Your task to perform on an android device: toggle data saver in the chrome app Image 0: 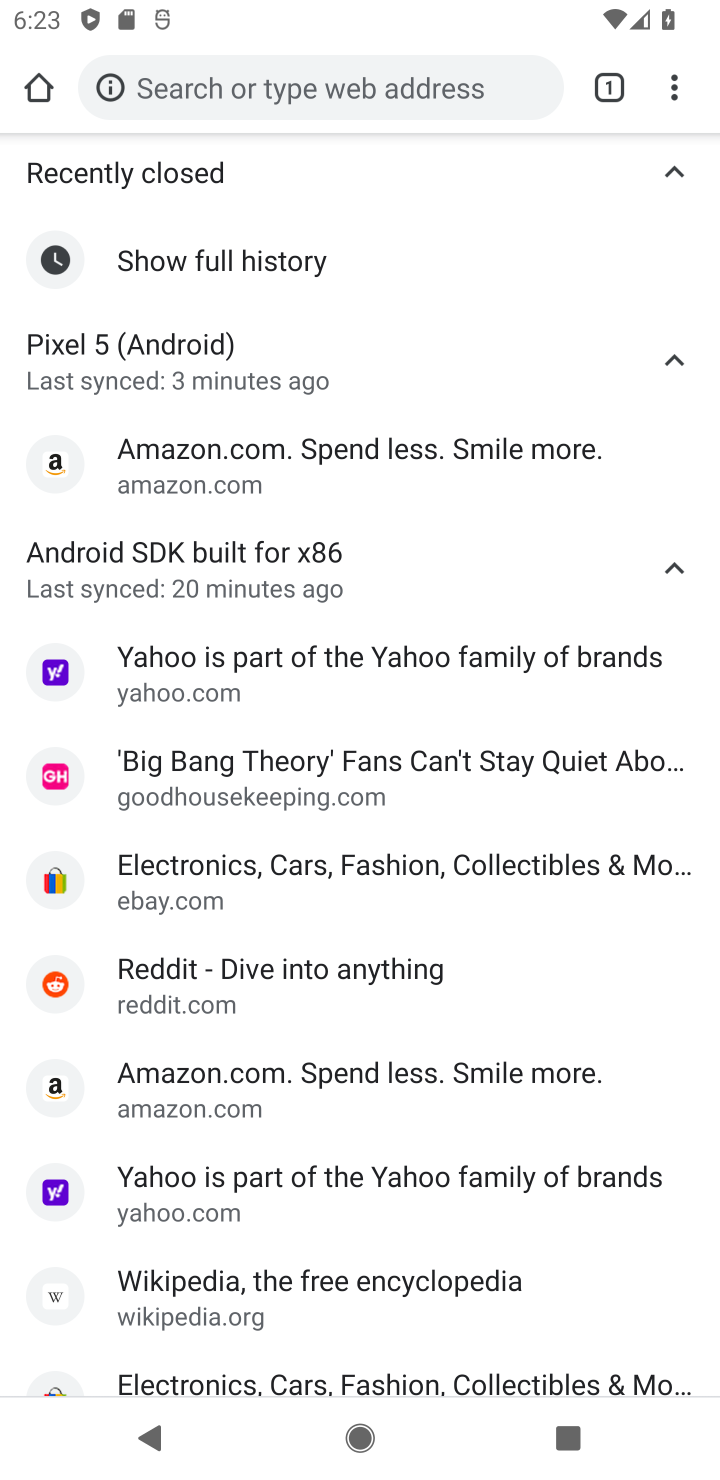
Step 0: press back button
Your task to perform on an android device: toggle data saver in the chrome app Image 1: 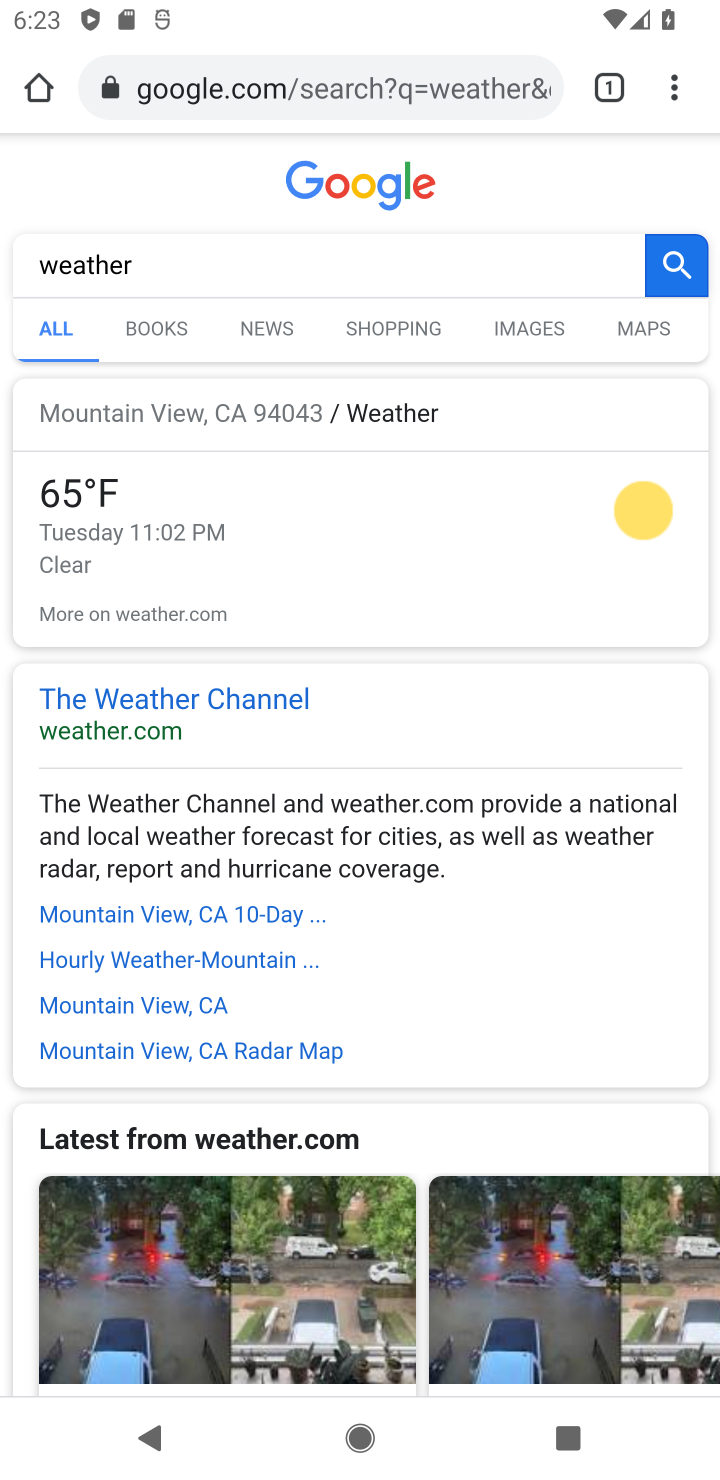
Step 1: press home button
Your task to perform on an android device: toggle data saver in the chrome app Image 2: 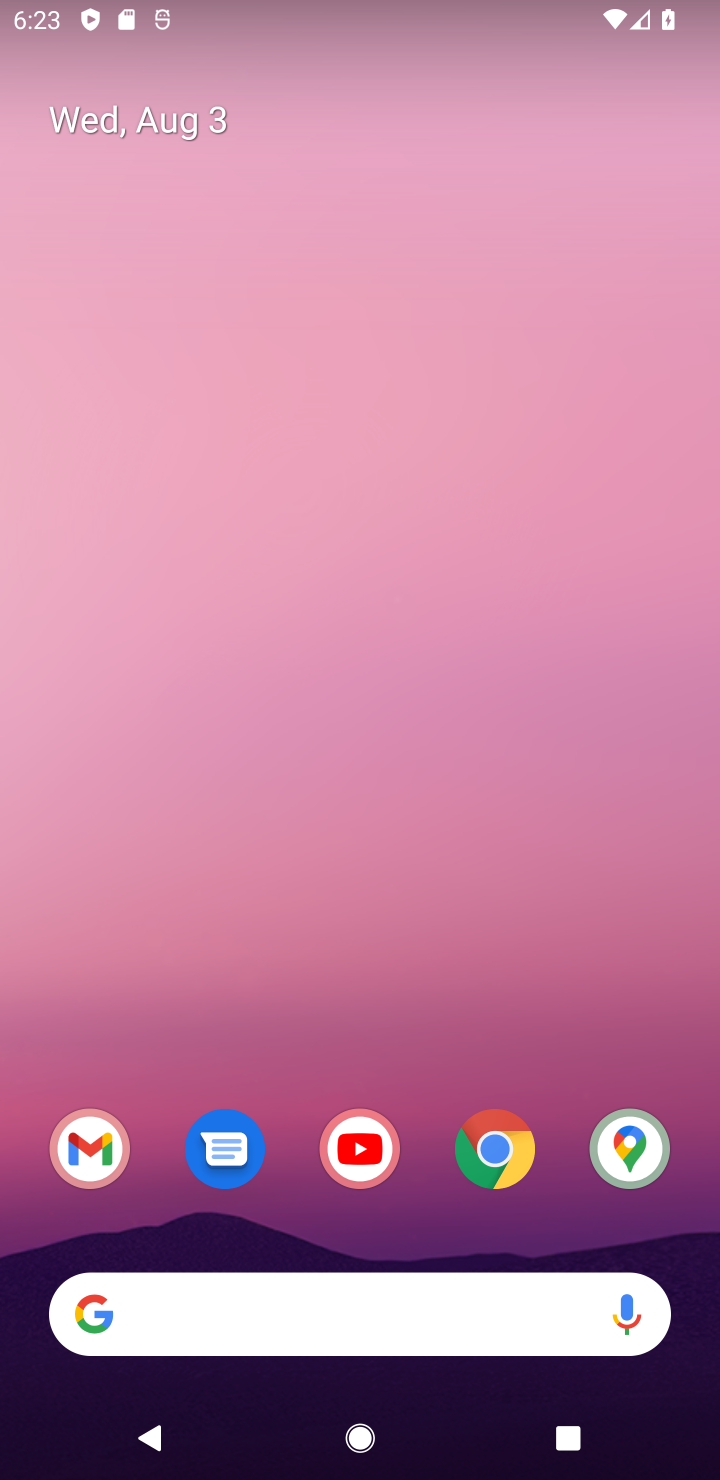
Step 2: click (505, 1171)
Your task to perform on an android device: toggle data saver in the chrome app Image 3: 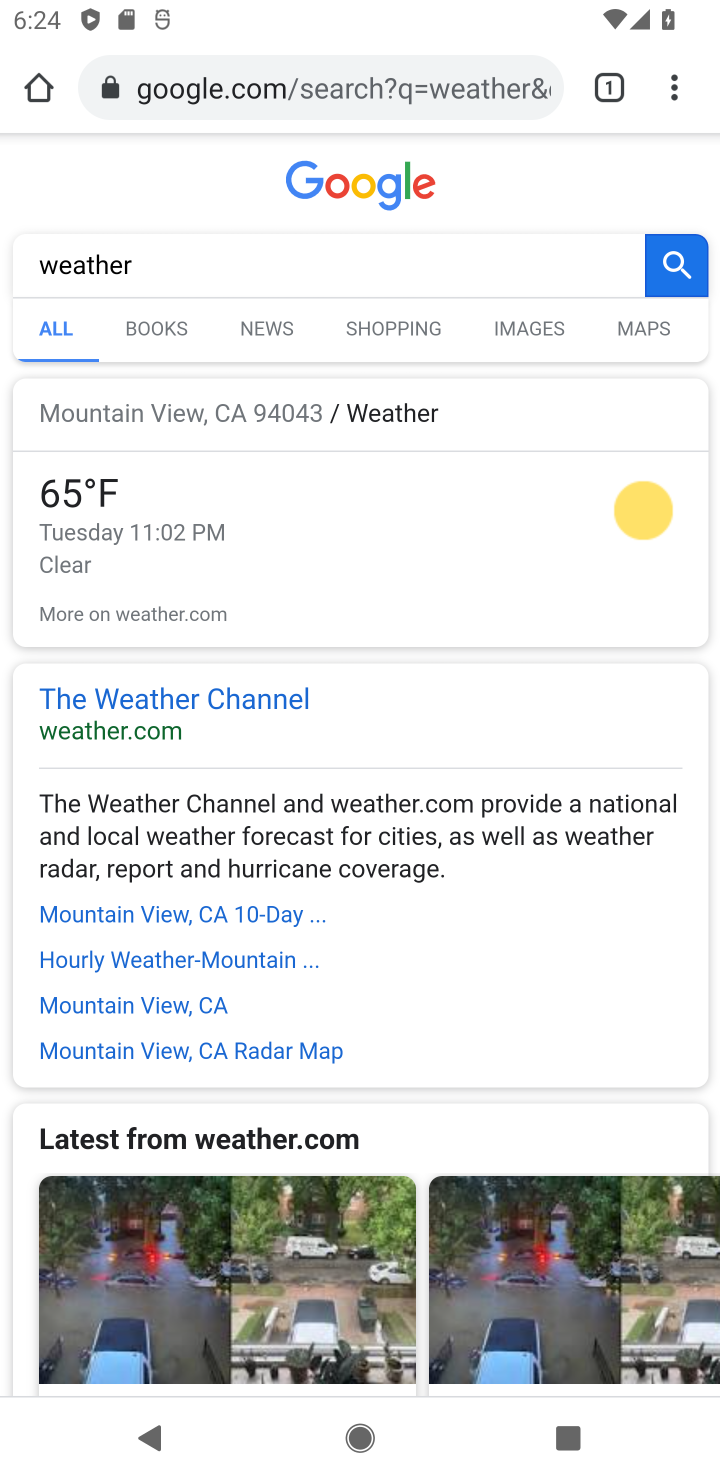
Step 3: drag from (680, 84) to (490, 1176)
Your task to perform on an android device: toggle data saver in the chrome app Image 4: 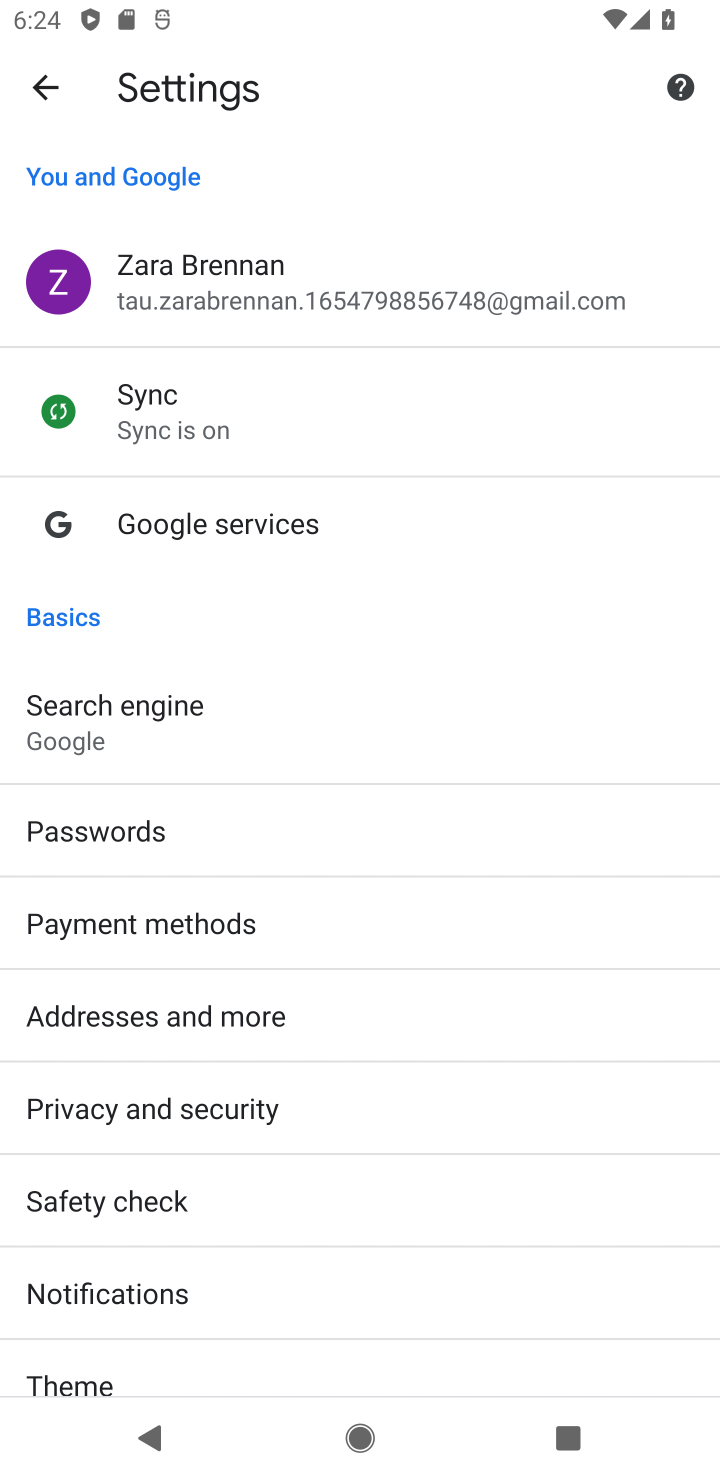
Step 4: drag from (239, 1244) to (154, 321)
Your task to perform on an android device: toggle data saver in the chrome app Image 5: 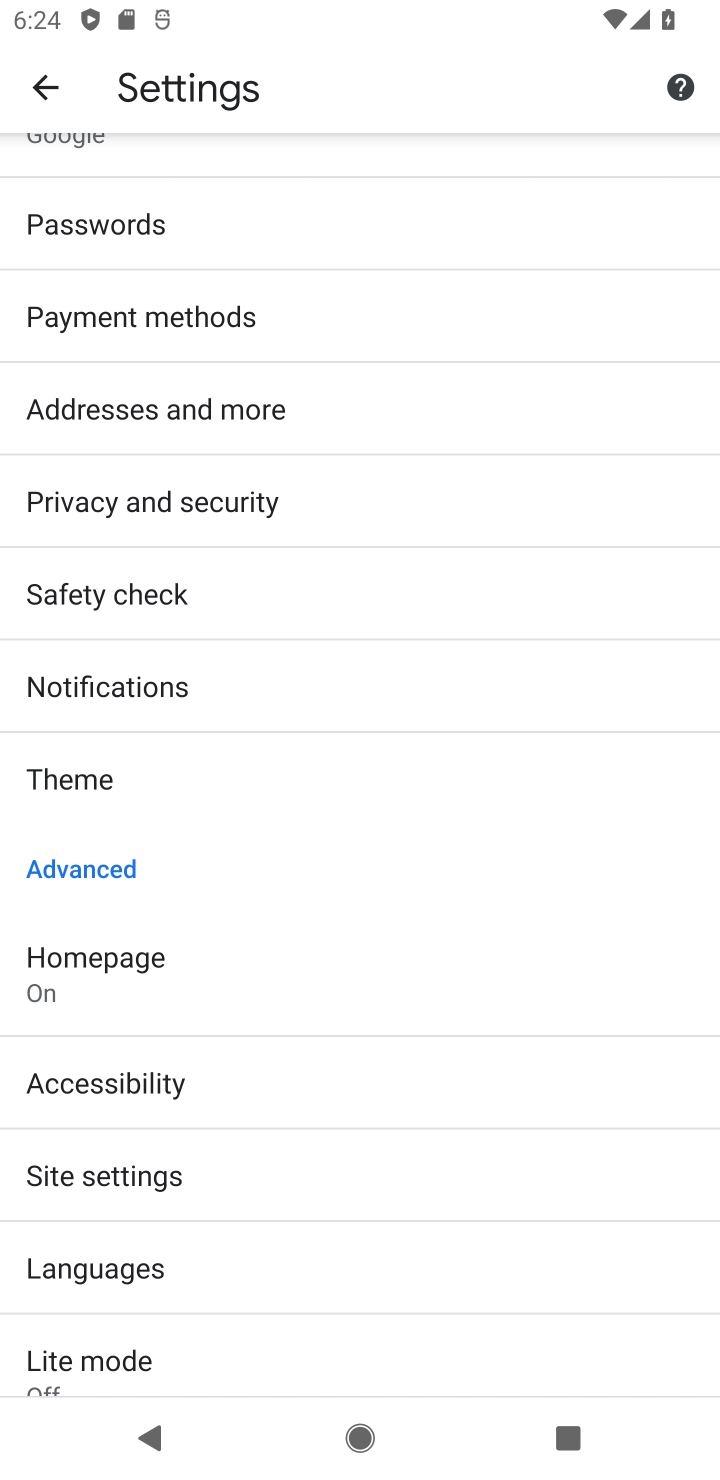
Step 5: click (172, 1348)
Your task to perform on an android device: toggle data saver in the chrome app Image 6: 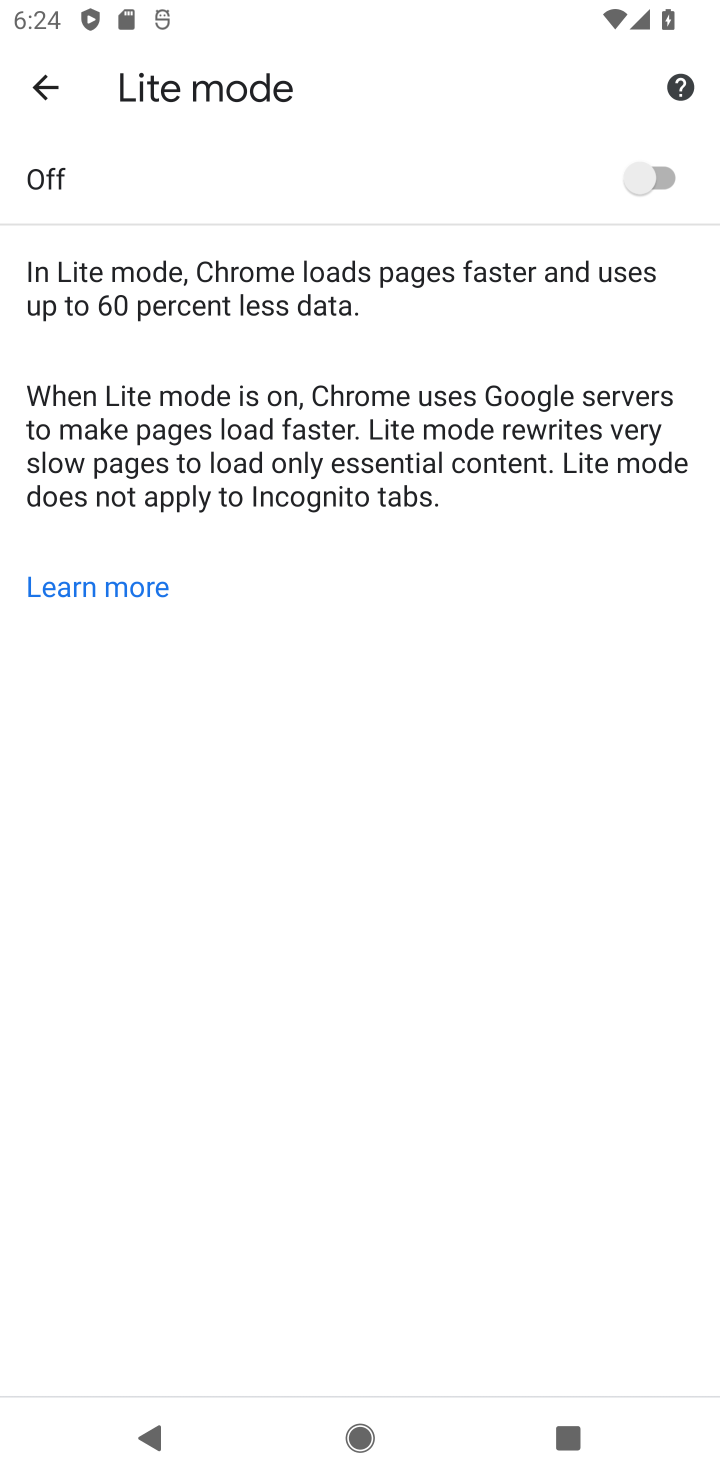
Step 6: click (664, 162)
Your task to perform on an android device: toggle data saver in the chrome app Image 7: 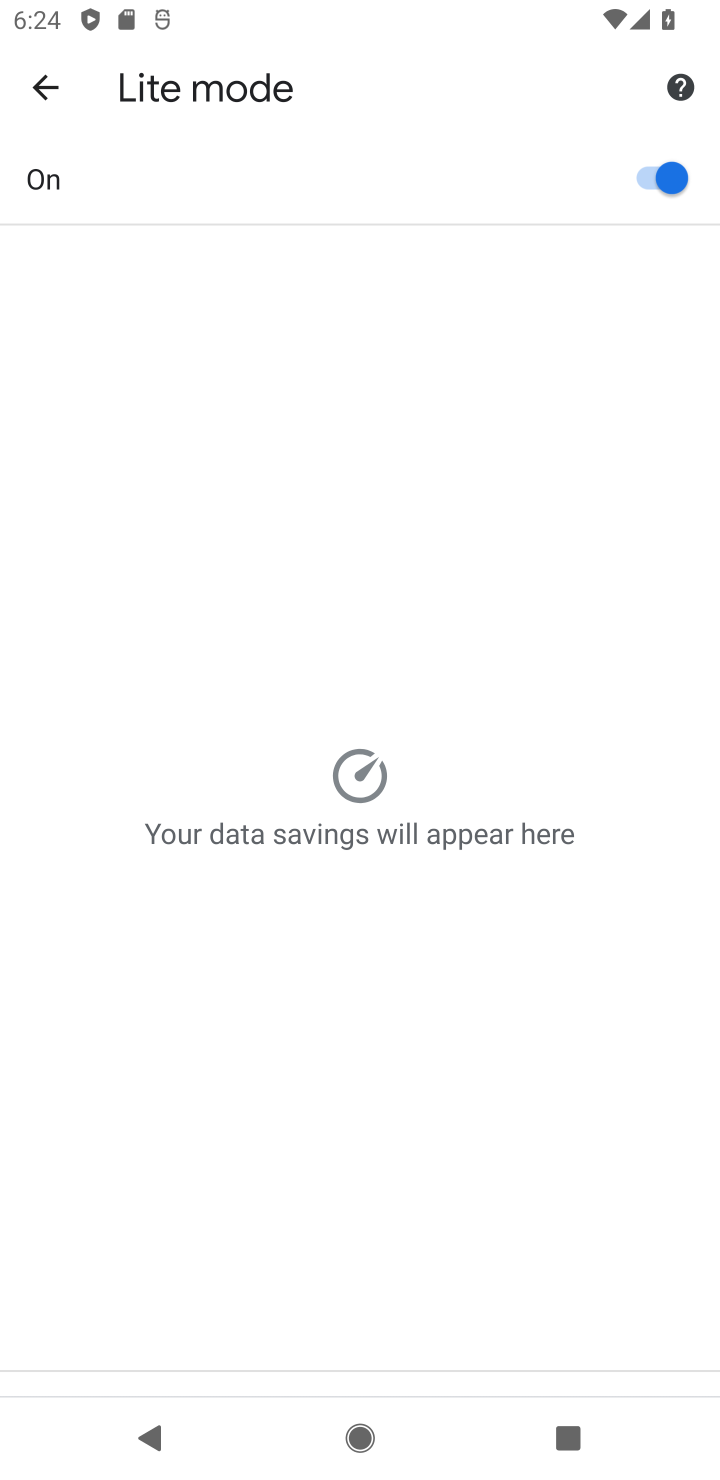
Step 7: task complete